Your task to perform on an android device: Show me recent news Image 0: 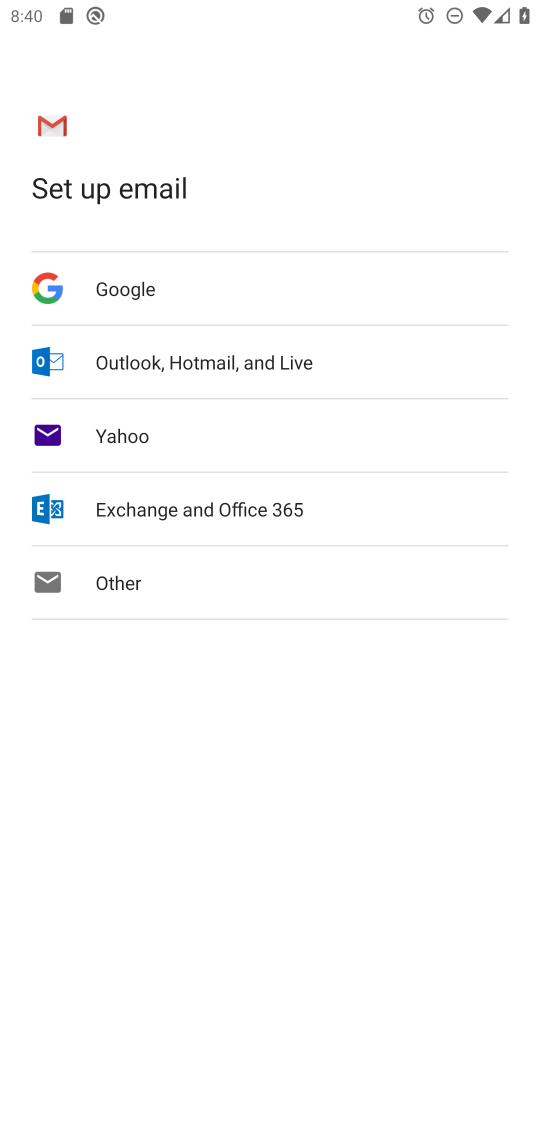
Step 0: press home button
Your task to perform on an android device: Show me recent news Image 1: 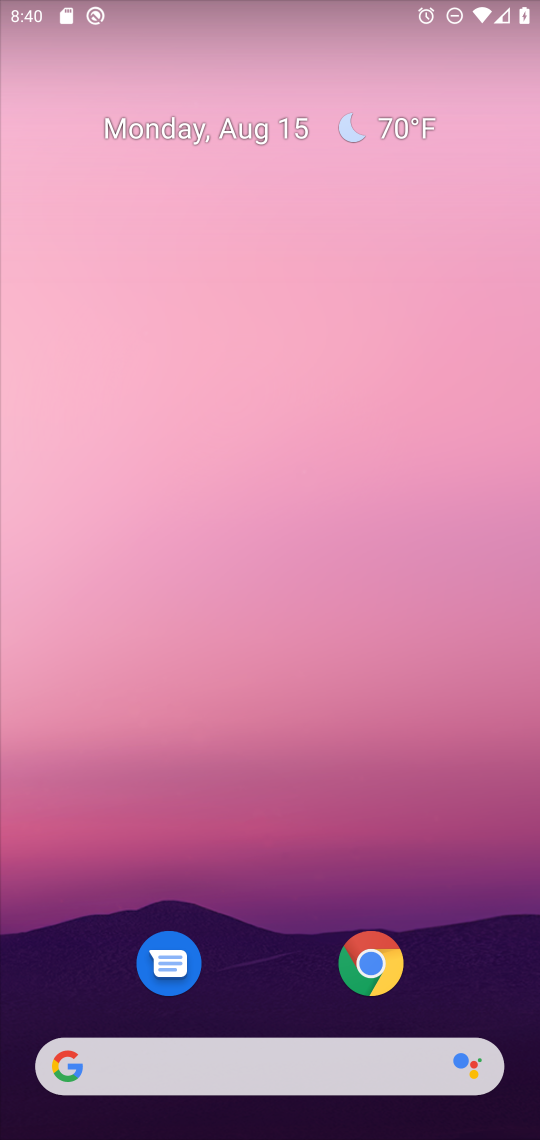
Step 1: click (288, 1098)
Your task to perform on an android device: Show me recent news Image 2: 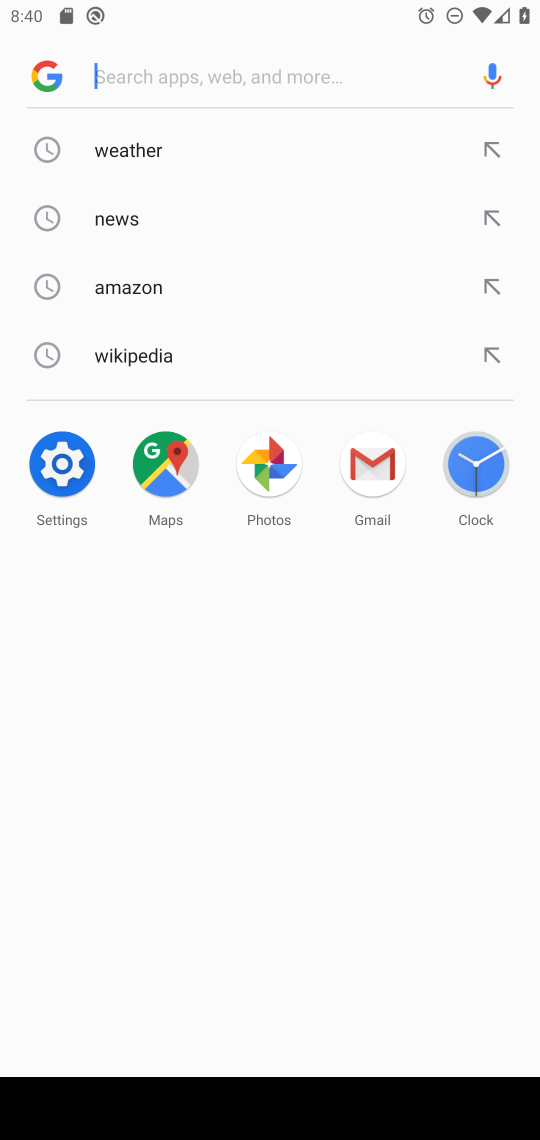
Step 2: click (41, 74)
Your task to perform on an android device: Show me recent news Image 3: 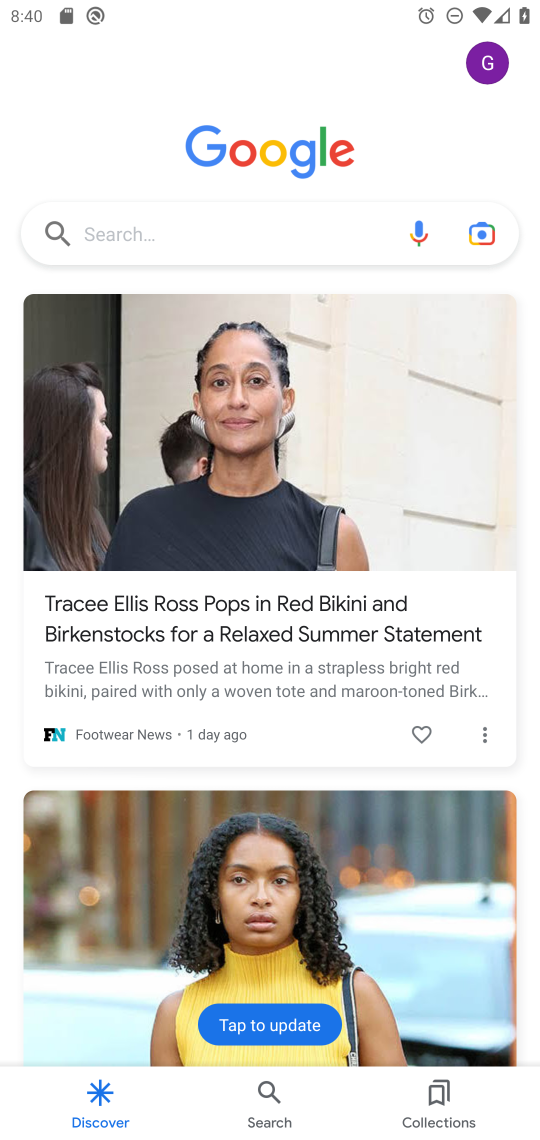
Step 3: task complete